Your task to perform on an android device: open app "Microsoft Authenticator" (install if not already installed), go to login, and select forgot password Image 0: 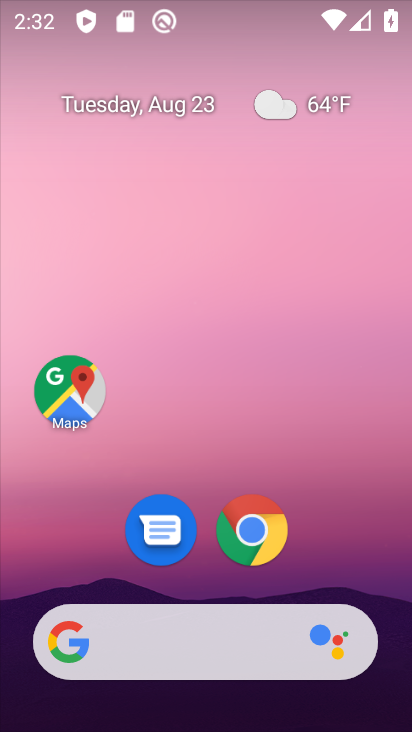
Step 0: drag from (210, 593) to (216, 19)
Your task to perform on an android device: open app "Microsoft Authenticator" (install if not already installed), go to login, and select forgot password Image 1: 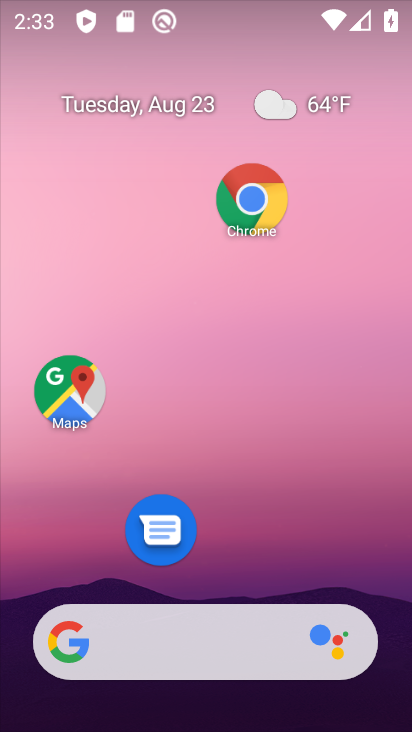
Step 1: drag from (273, 575) to (276, 20)
Your task to perform on an android device: open app "Microsoft Authenticator" (install if not already installed), go to login, and select forgot password Image 2: 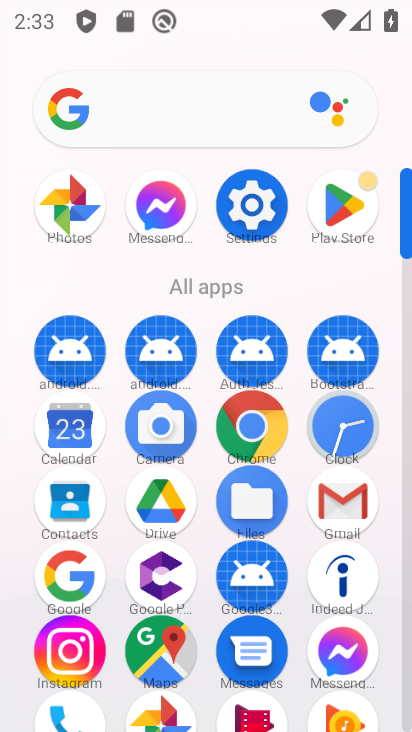
Step 2: click (332, 203)
Your task to perform on an android device: open app "Microsoft Authenticator" (install if not already installed), go to login, and select forgot password Image 3: 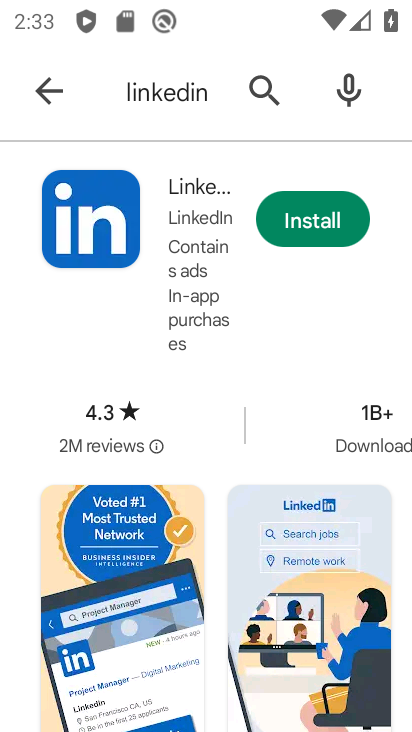
Step 3: click (175, 95)
Your task to perform on an android device: open app "Microsoft Authenticator" (install if not already installed), go to login, and select forgot password Image 4: 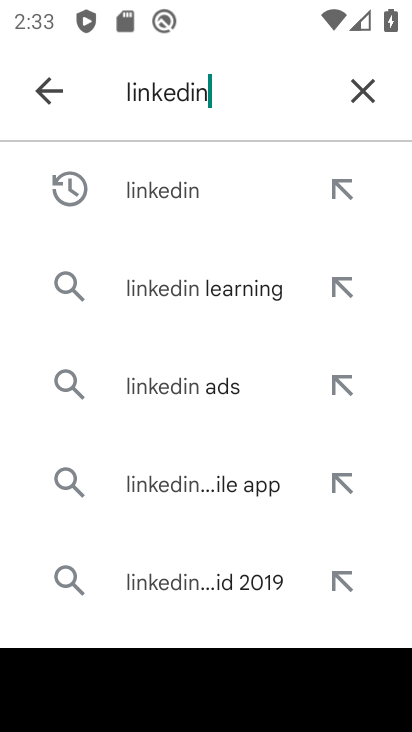
Step 4: click (363, 92)
Your task to perform on an android device: open app "Microsoft Authenticator" (install if not already installed), go to login, and select forgot password Image 5: 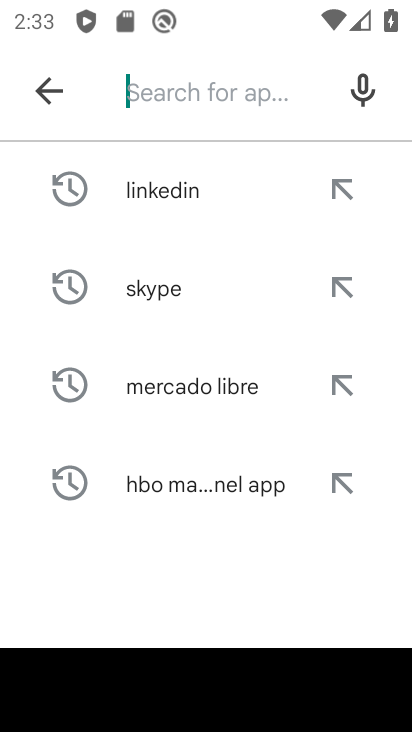
Step 5: type "microsoft Authenticator"
Your task to perform on an android device: open app "Microsoft Authenticator" (install if not already installed), go to login, and select forgot password Image 6: 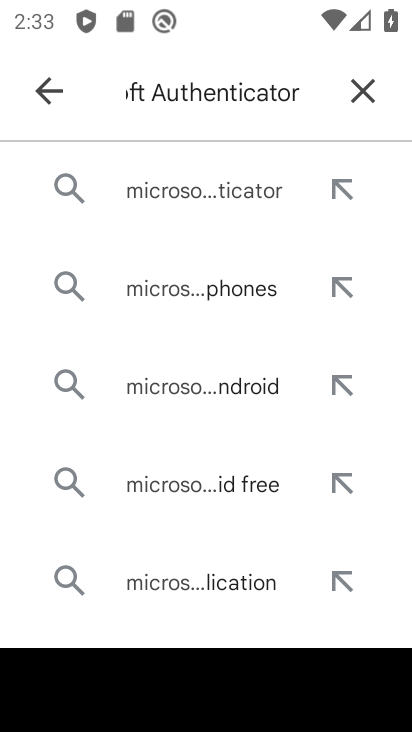
Step 6: click (219, 207)
Your task to perform on an android device: open app "Microsoft Authenticator" (install if not already installed), go to login, and select forgot password Image 7: 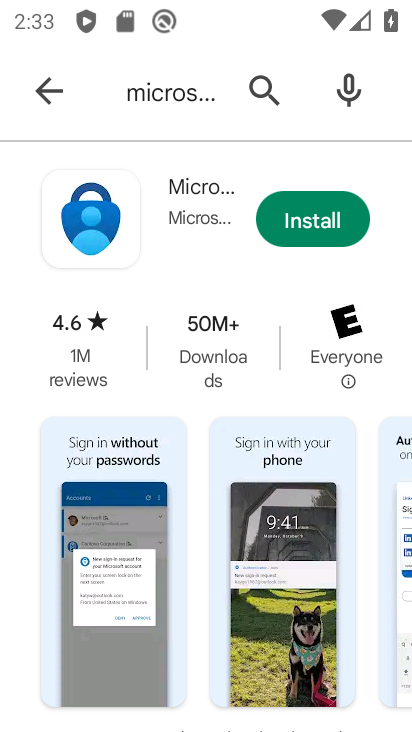
Step 7: click (312, 211)
Your task to perform on an android device: open app "Microsoft Authenticator" (install if not already installed), go to login, and select forgot password Image 8: 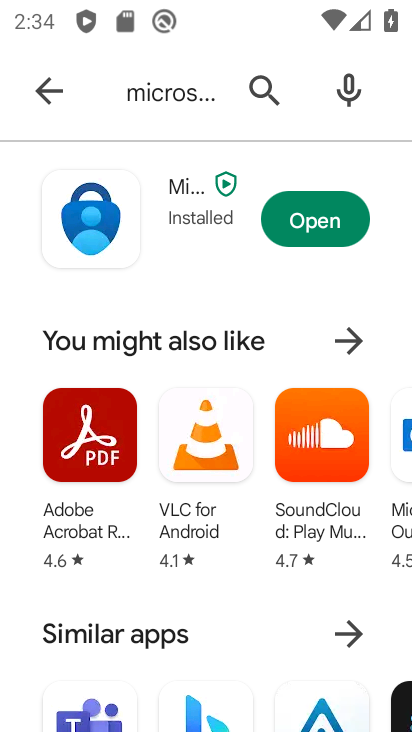
Step 8: click (322, 229)
Your task to perform on an android device: open app "Microsoft Authenticator" (install if not already installed), go to login, and select forgot password Image 9: 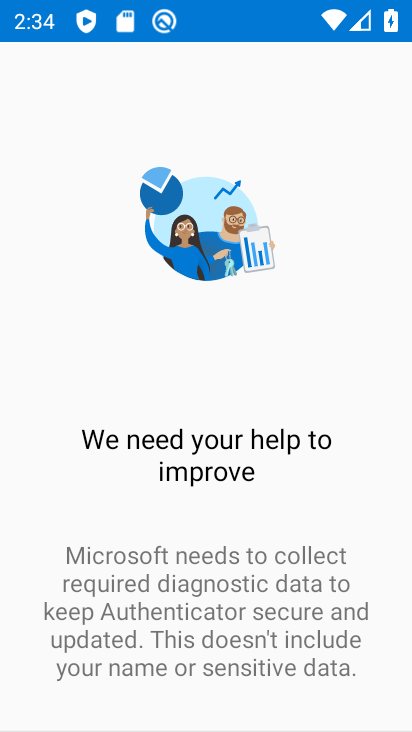
Step 9: drag from (214, 534) to (223, 219)
Your task to perform on an android device: open app "Microsoft Authenticator" (install if not already installed), go to login, and select forgot password Image 10: 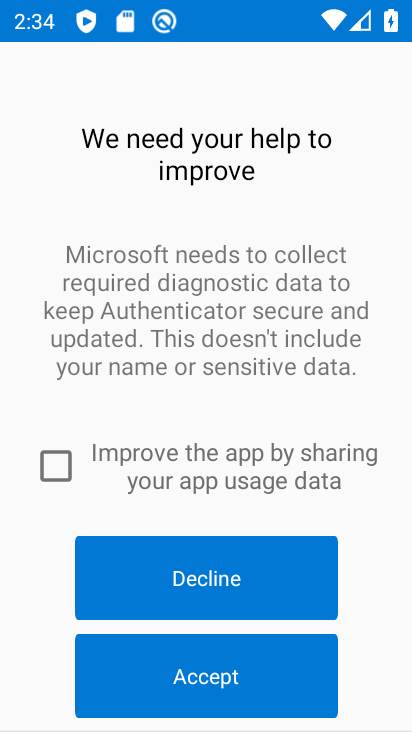
Step 10: click (68, 474)
Your task to perform on an android device: open app "Microsoft Authenticator" (install if not already installed), go to login, and select forgot password Image 11: 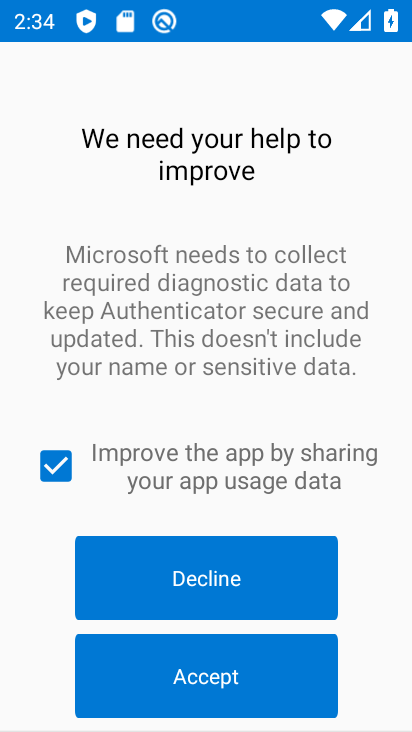
Step 11: drag from (173, 548) to (200, 266)
Your task to perform on an android device: open app "Microsoft Authenticator" (install if not already installed), go to login, and select forgot password Image 12: 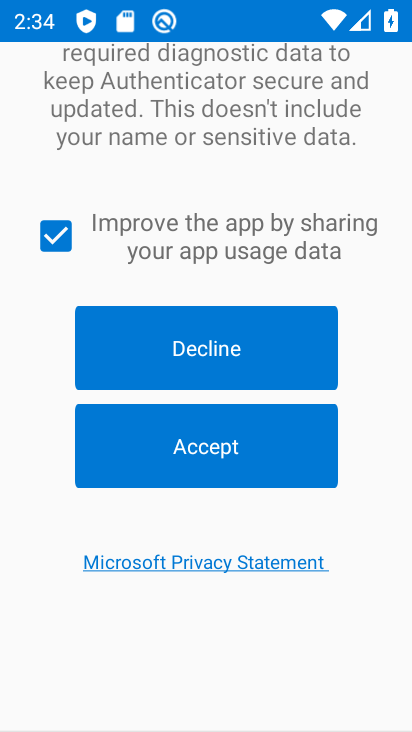
Step 12: click (193, 466)
Your task to perform on an android device: open app "Microsoft Authenticator" (install if not already installed), go to login, and select forgot password Image 13: 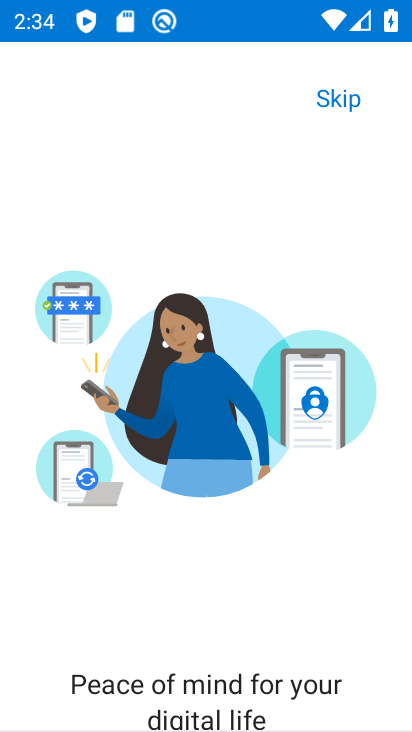
Step 13: click (323, 89)
Your task to perform on an android device: open app "Microsoft Authenticator" (install if not already installed), go to login, and select forgot password Image 14: 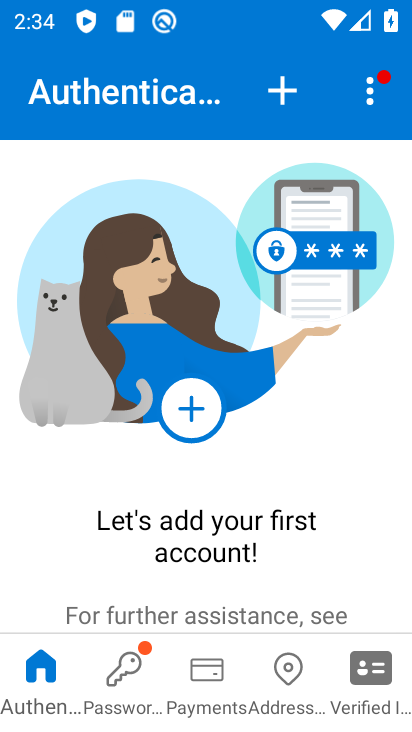
Step 14: drag from (209, 495) to (310, 1)
Your task to perform on an android device: open app "Microsoft Authenticator" (install if not already installed), go to login, and select forgot password Image 15: 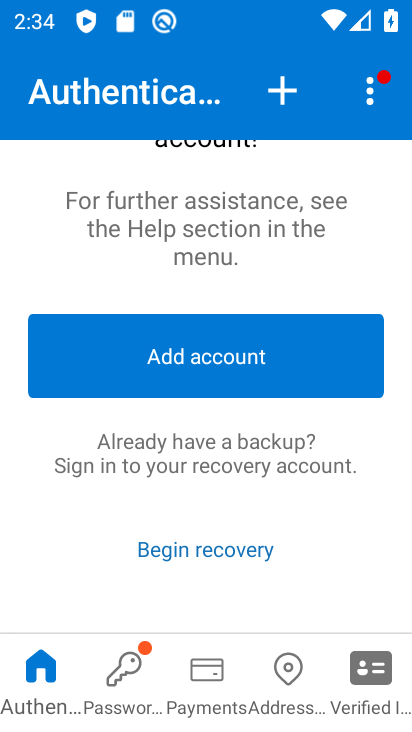
Step 15: drag from (239, 425) to (242, 380)
Your task to perform on an android device: open app "Microsoft Authenticator" (install if not already installed), go to login, and select forgot password Image 16: 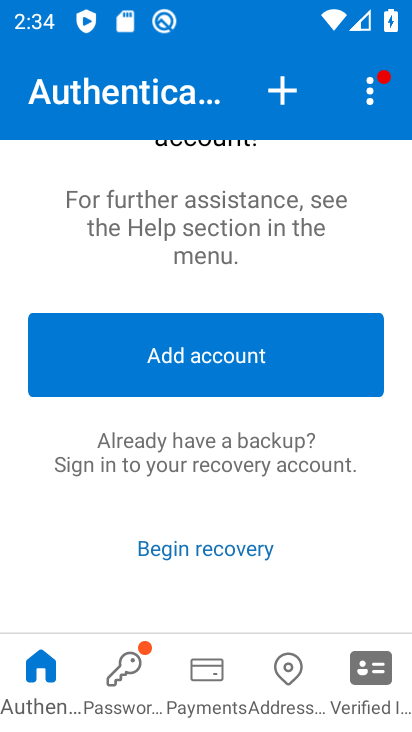
Step 16: click (229, 334)
Your task to perform on an android device: open app "Microsoft Authenticator" (install if not already installed), go to login, and select forgot password Image 17: 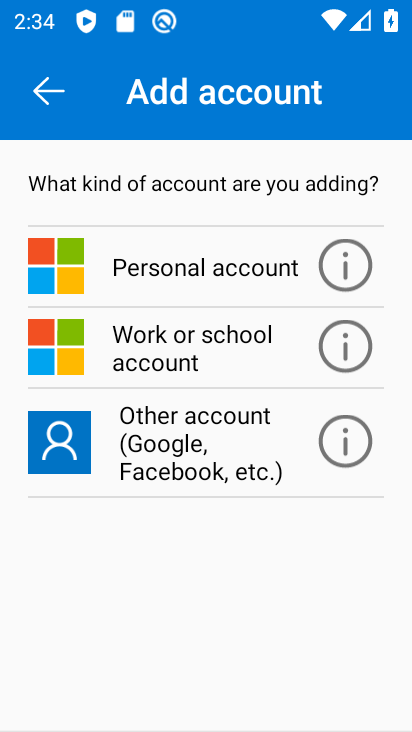
Step 17: click (207, 273)
Your task to perform on an android device: open app "Microsoft Authenticator" (install if not already installed), go to login, and select forgot password Image 18: 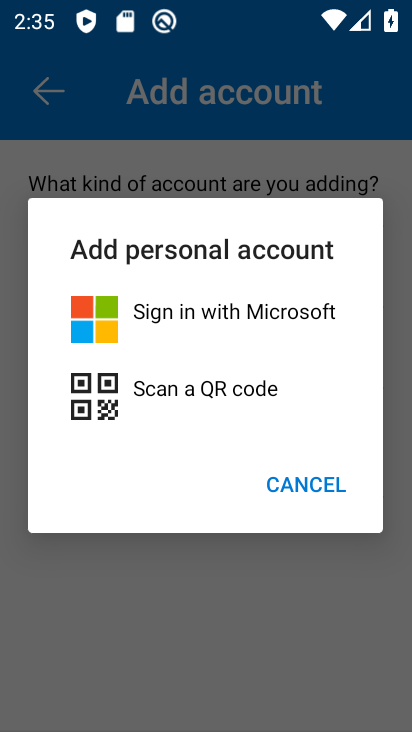
Step 18: click (267, 310)
Your task to perform on an android device: open app "Microsoft Authenticator" (install if not already installed), go to login, and select forgot password Image 19: 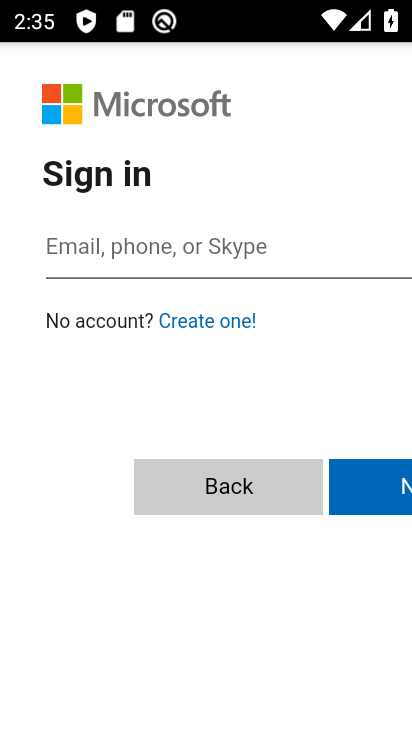
Step 19: task complete